Your task to perform on an android device: empty trash in google photos Image 0: 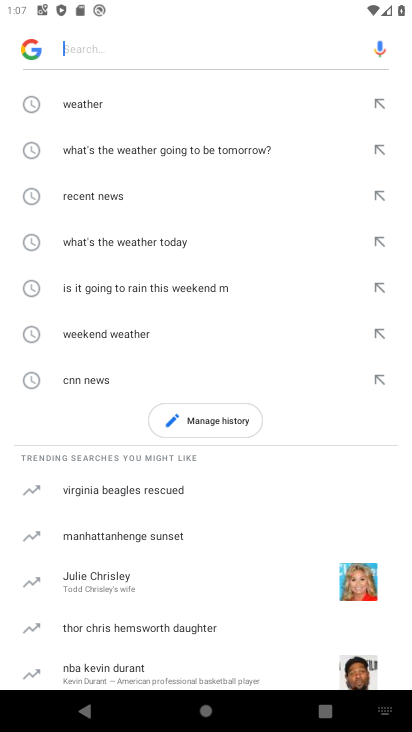
Step 0: press home button
Your task to perform on an android device: empty trash in google photos Image 1: 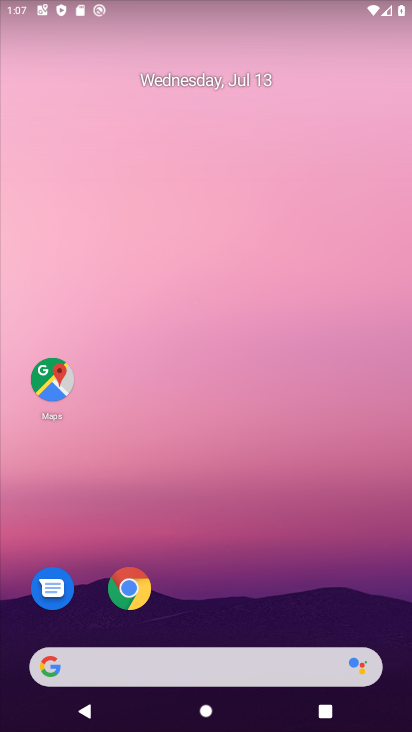
Step 1: drag from (159, 650) to (136, 331)
Your task to perform on an android device: empty trash in google photos Image 2: 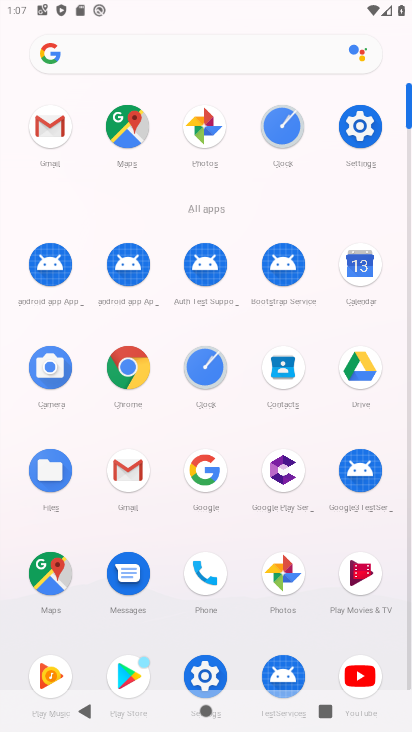
Step 2: click (281, 575)
Your task to perform on an android device: empty trash in google photos Image 3: 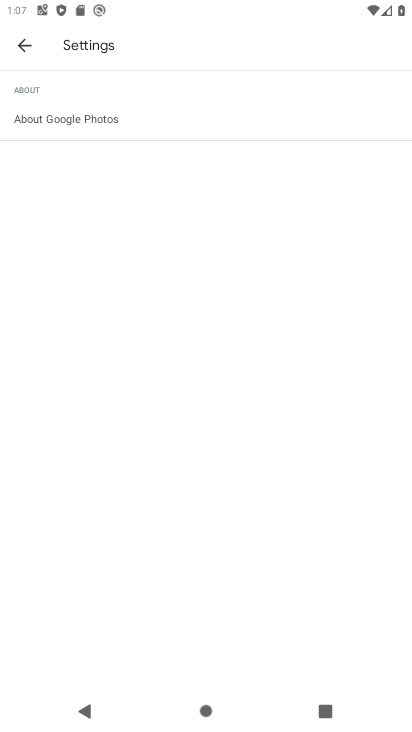
Step 3: click (23, 41)
Your task to perform on an android device: empty trash in google photos Image 4: 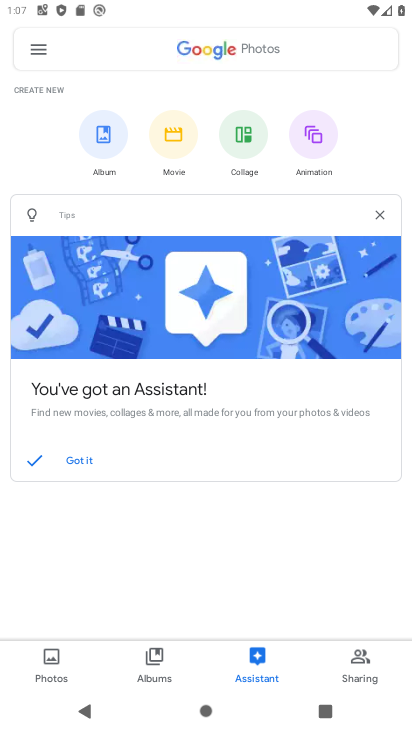
Step 4: click (44, 47)
Your task to perform on an android device: empty trash in google photos Image 5: 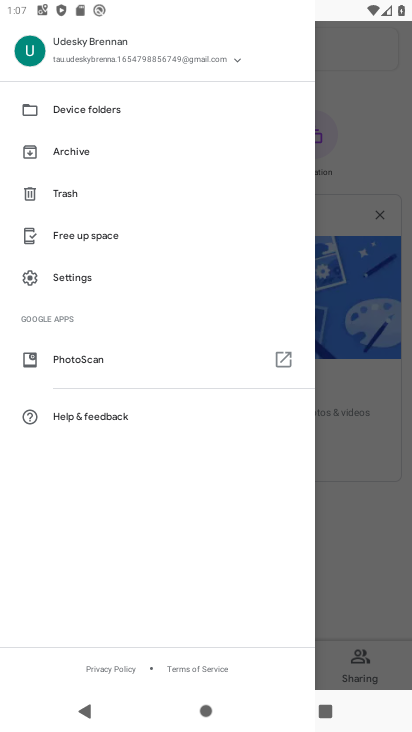
Step 5: click (68, 189)
Your task to perform on an android device: empty trash in google photos Image 6: 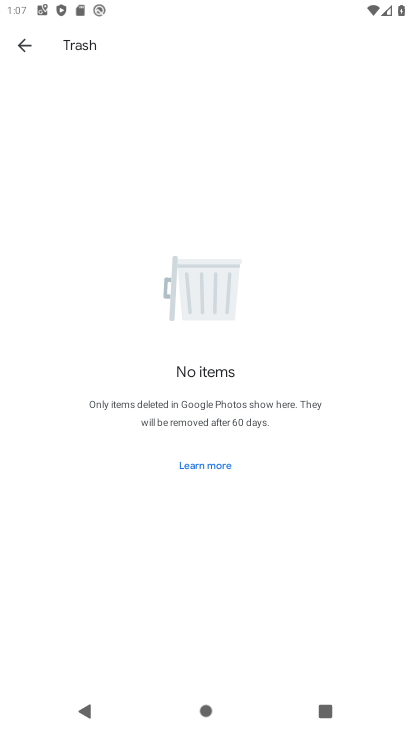
Step 6: task complete